Your task to perform on an android device: show emergency info Image 0: 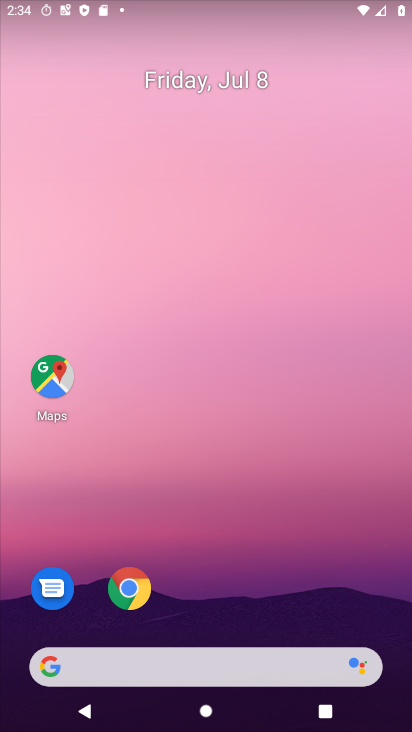
Step 0: press home button
Your task to perform on an android device: show emergency info Image 1: 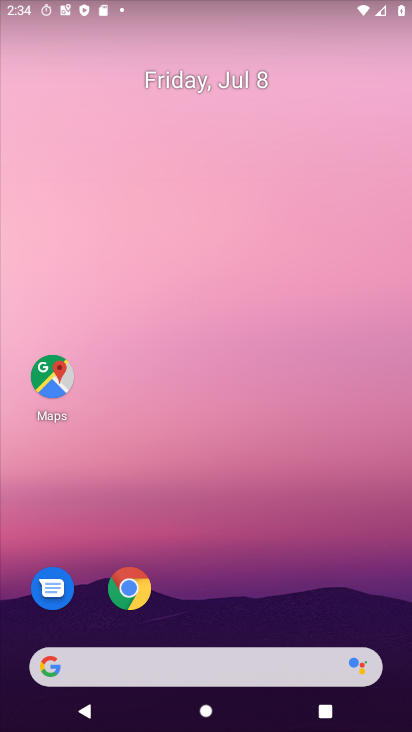
Step 1: drag from (233, 634) to (72, 7)
Your task to perform on an android device: show emergency info Image 2: 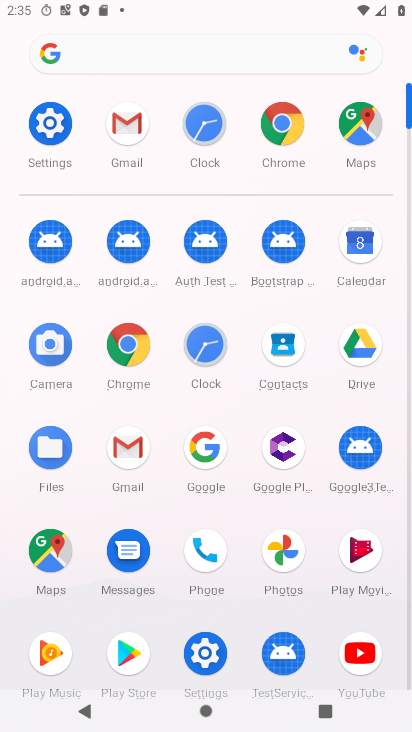
Step 2: click (42, 127)
Your task to perform on an android device: show emergency info Image 3: 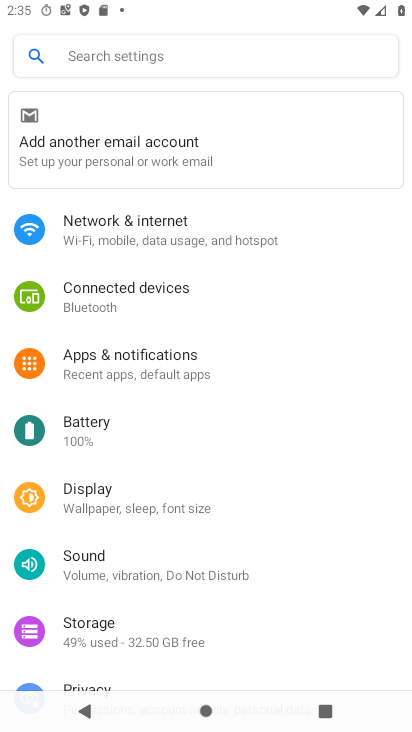
Step 3: drag from (178, 443) to (157, 0)
Your task to perform on an android device: show emergency info Image 4: 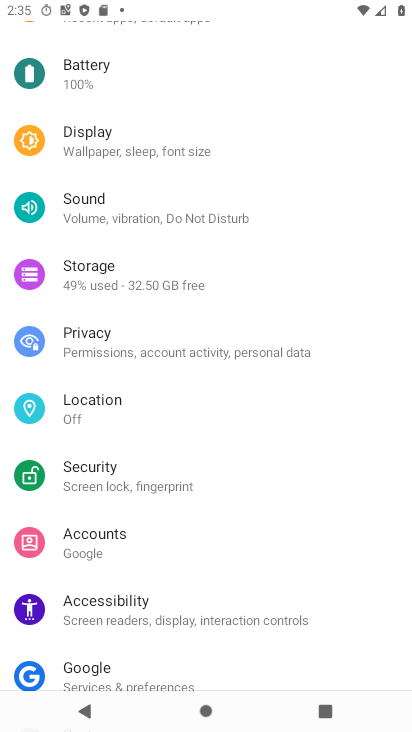
Step 4: drag from (267, 635) to (309, 65)
Your task to perform on an android device: show emergency info Image 5: 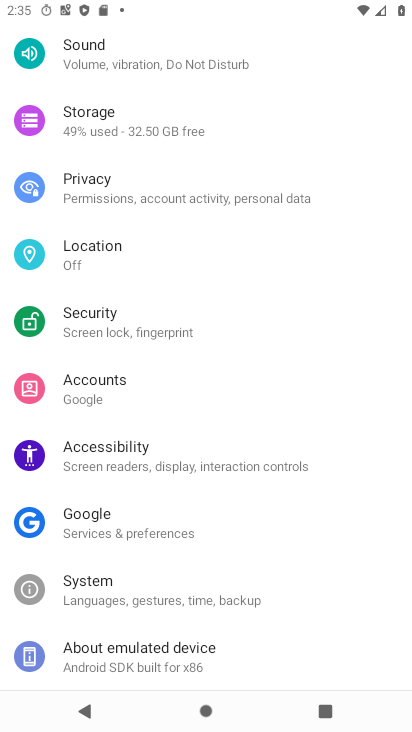
Step 5: click (128, 660)
Your task to perform on an android device: show emergency info Image 6: 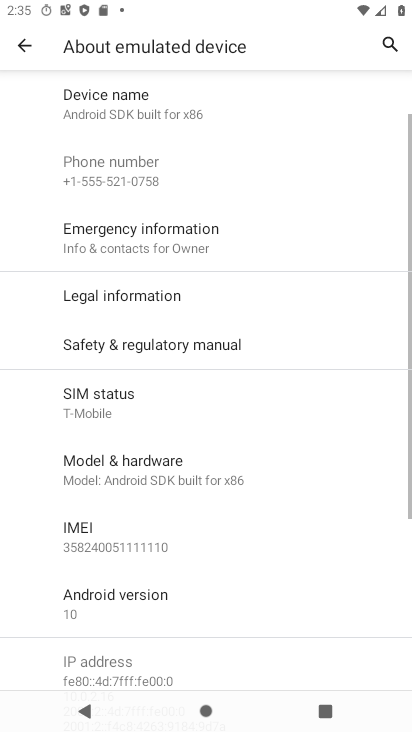
Step 6: click (157, 231)
Your task to perform on an android device: show emergency info Image 7: 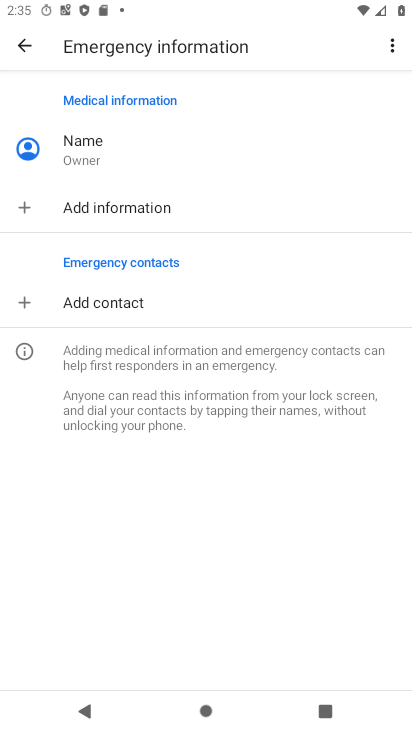
Step 7: task complete